Your task to perform on an android device: What's the weather? Image 0: 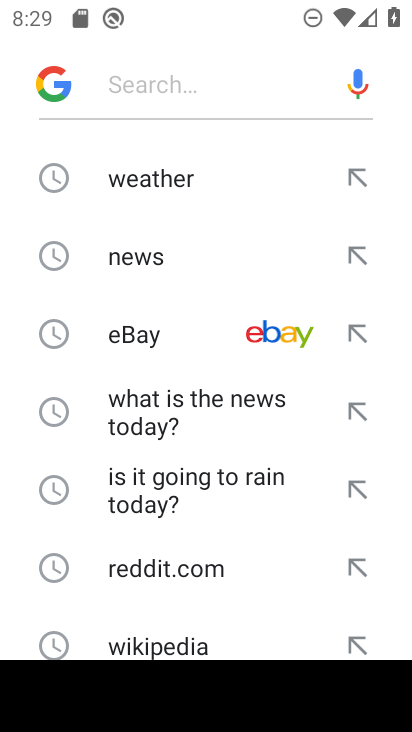
Step 0: click (165, 185)
Your task to perform on an android device: What's the weather? Image 1: 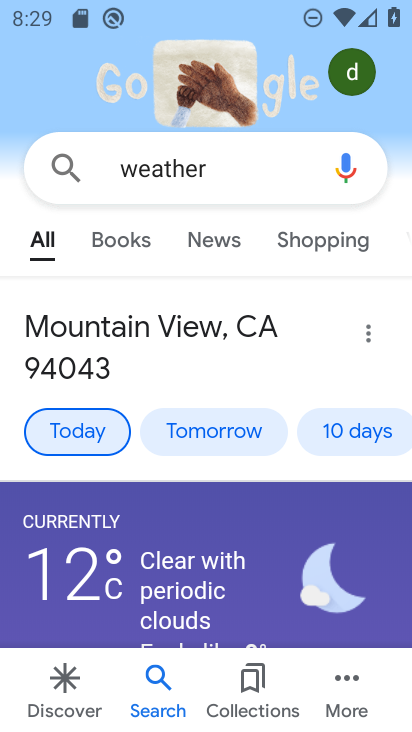
Step 1: task complete